Your task to perform on an android device: Is it going to rain tomorrow? Image 0: 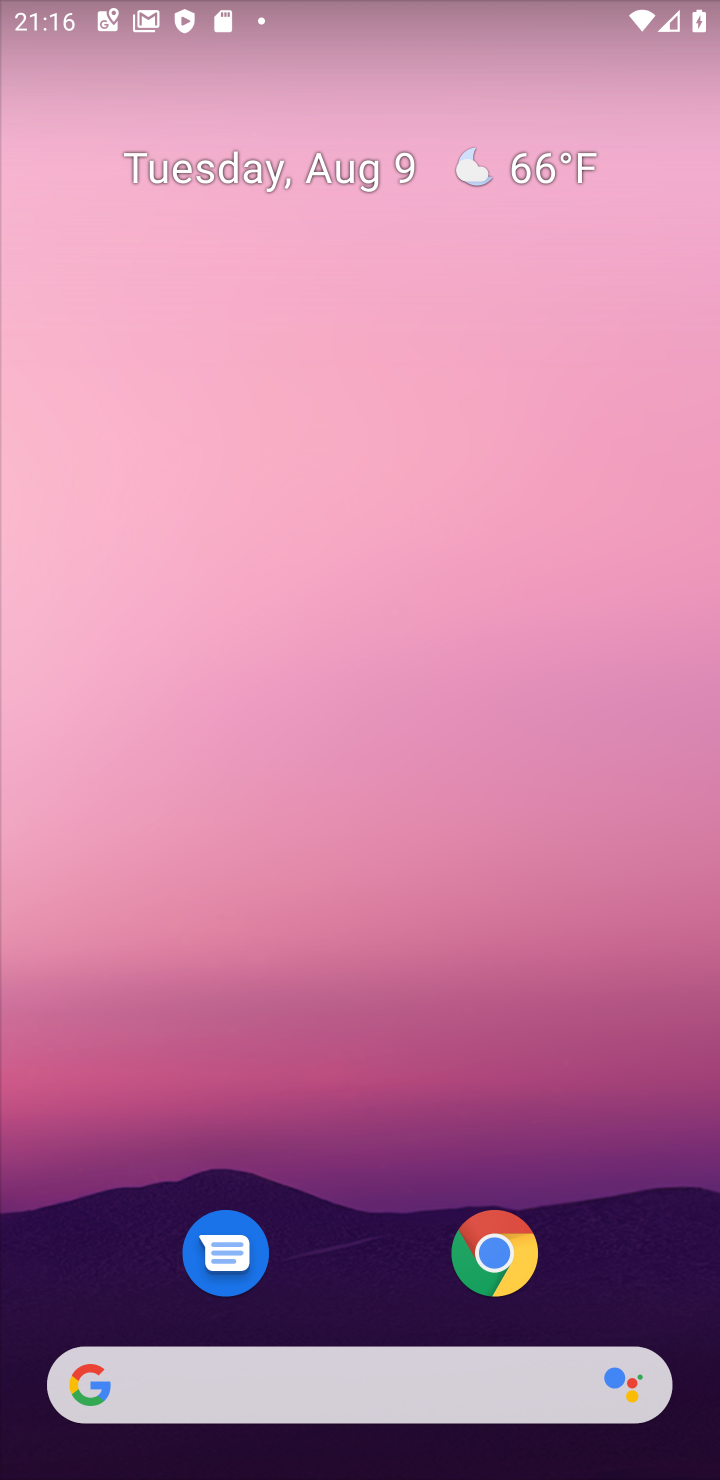
Step 0: click (567, 171)
Your task to perform on an android device: Is it going to rain tomorrow? Image 1: 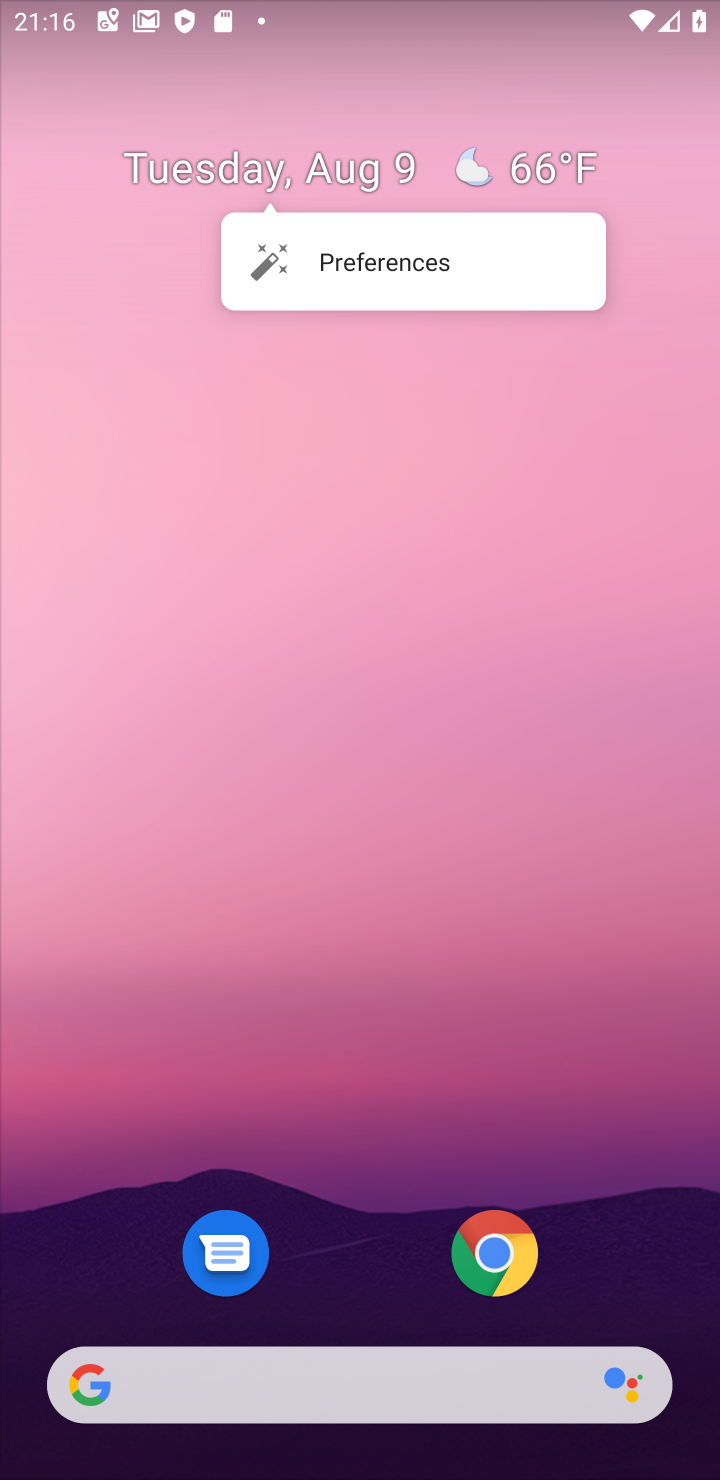
Step 1: click (567, 171)
Your task to perform on an android device: Is it going to rain tomorrow? Image 2: 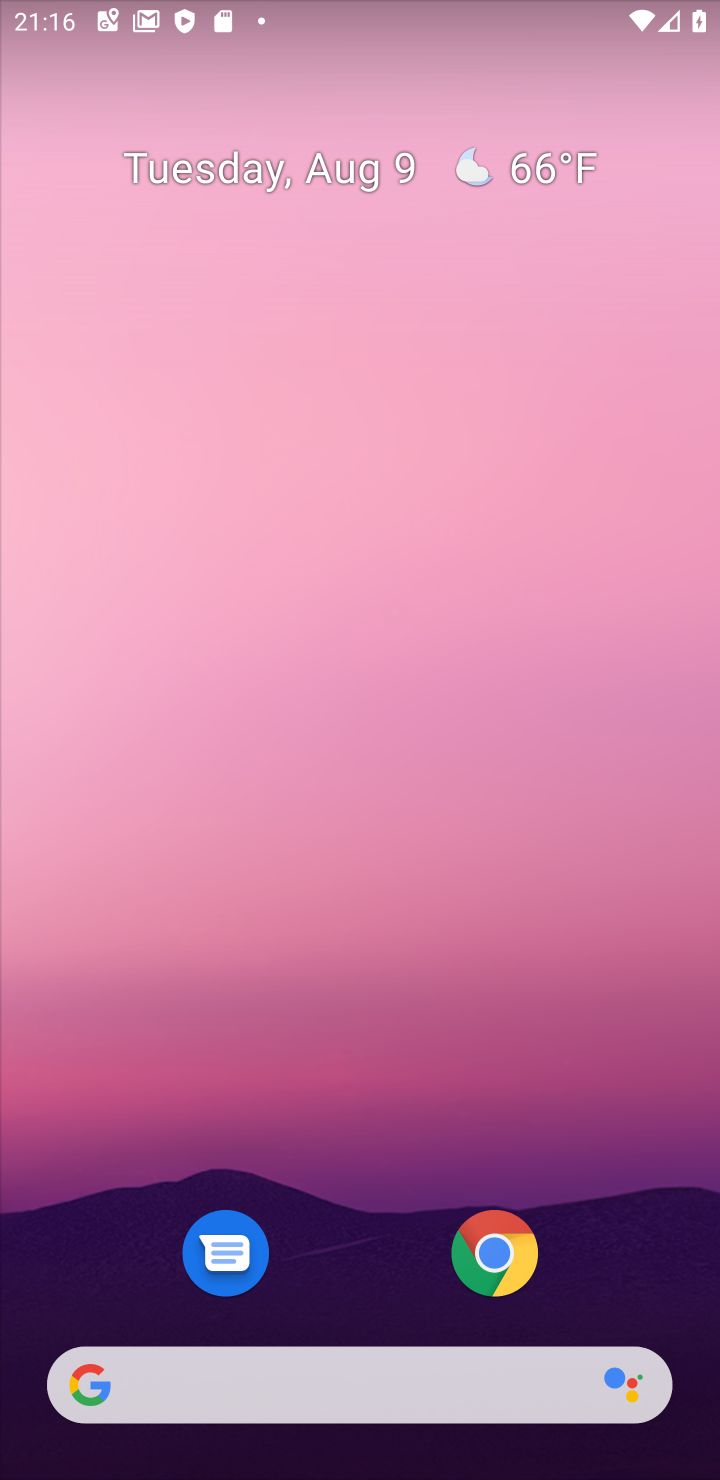
Step 2: click (507, 169)
Your task to perform on an android device: Is it going to rain tomorrow? Image 3: 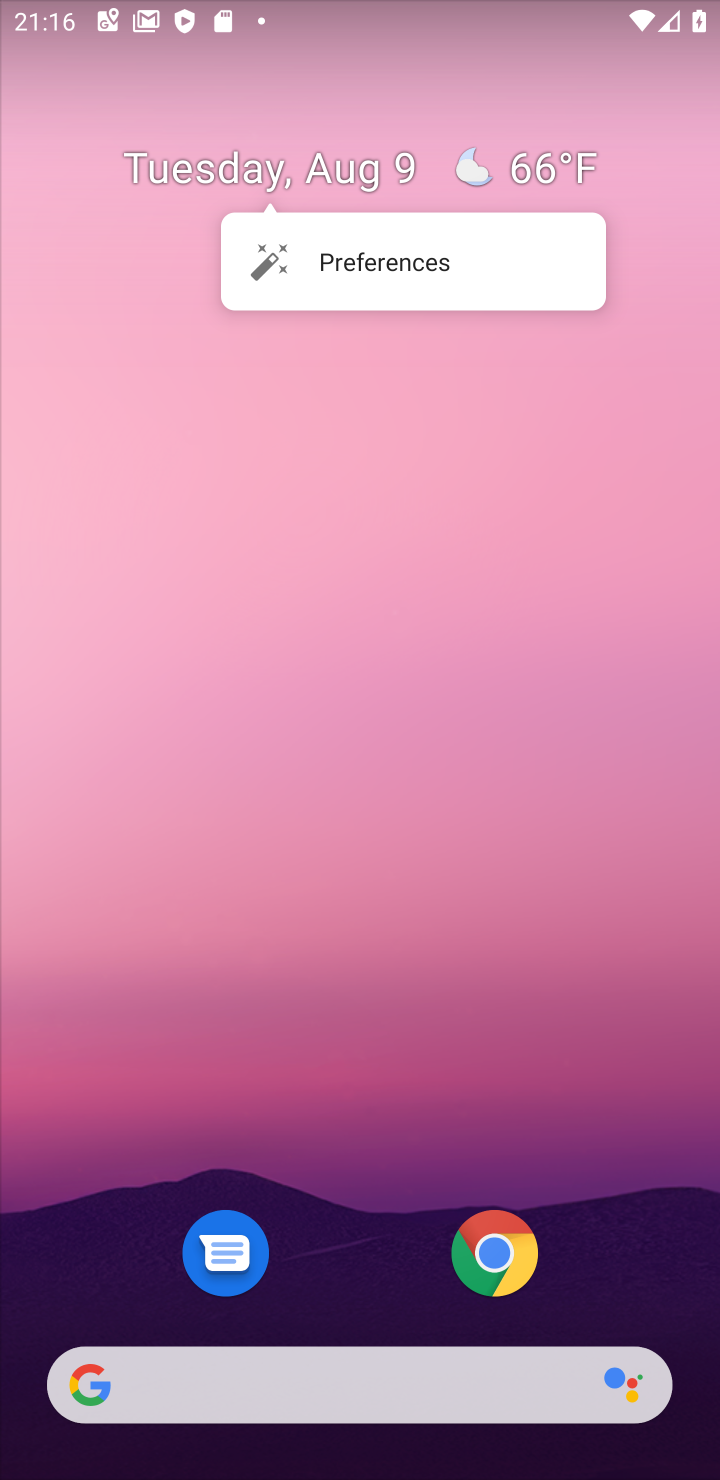
Step 3: click (514, 178)
Your task to perform on an android device: Is it going to rain tomorrow? Image 4: 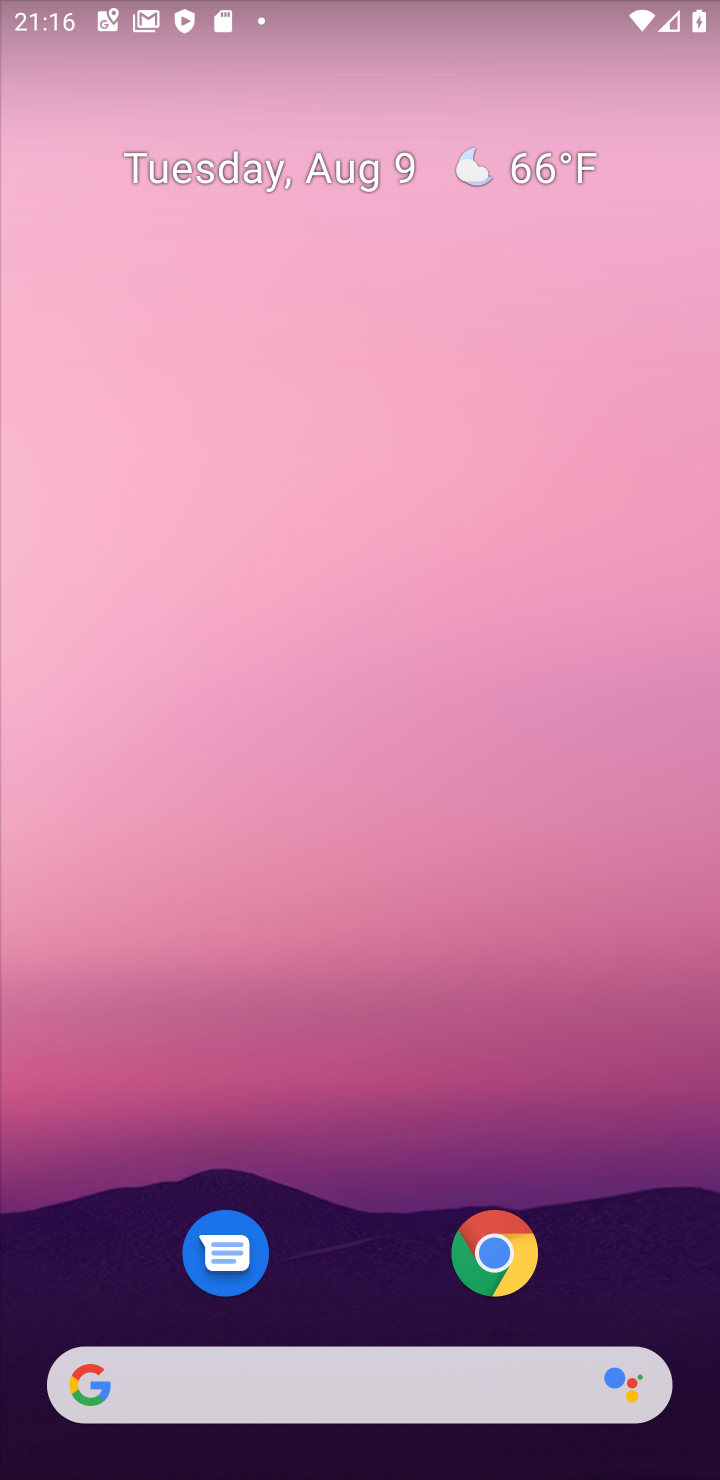
Step 4: click (380, 1234)
Your task to perform on an android device: Is it going to rain tomorrow? Image 5: 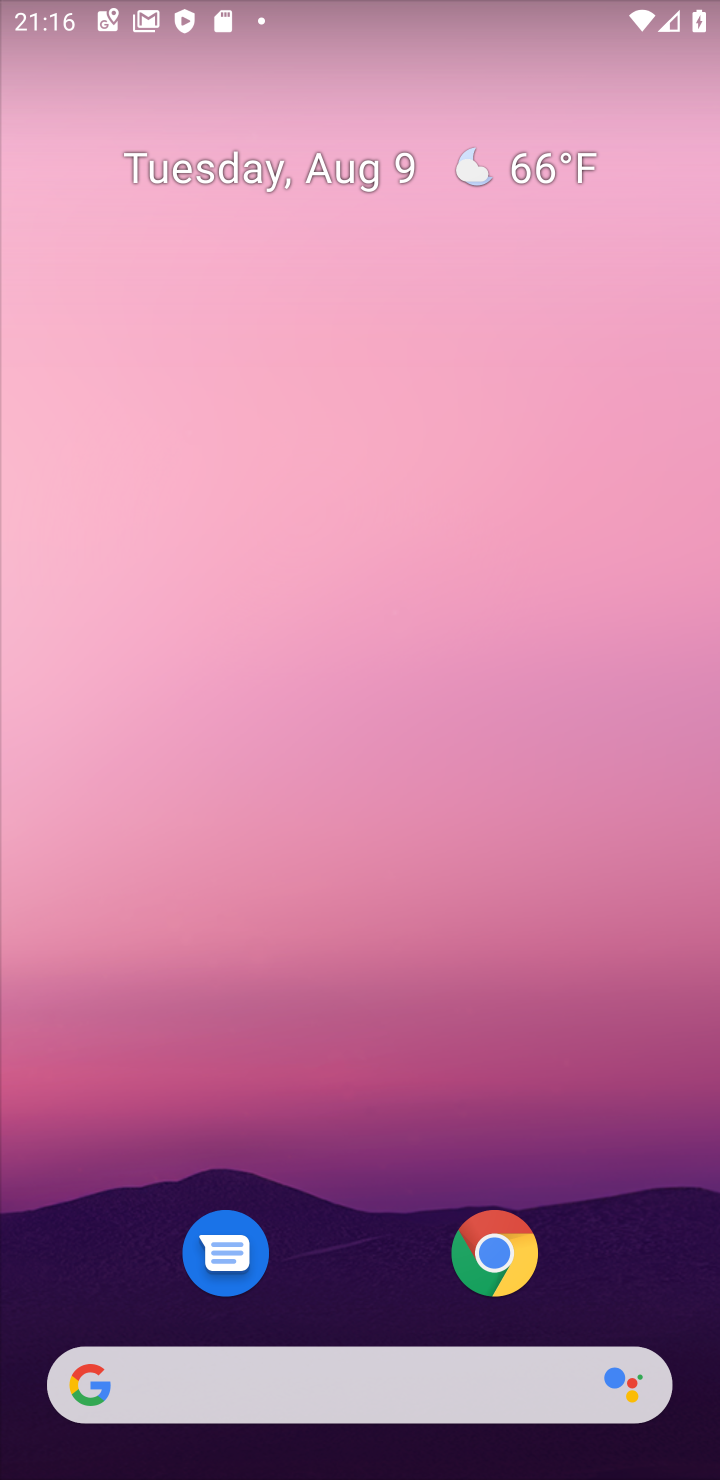
Step 5: drag from (365, 1174) to (561, 220)
Your task to perform on an android device: Is it going to rain tomorrow? Image 6: 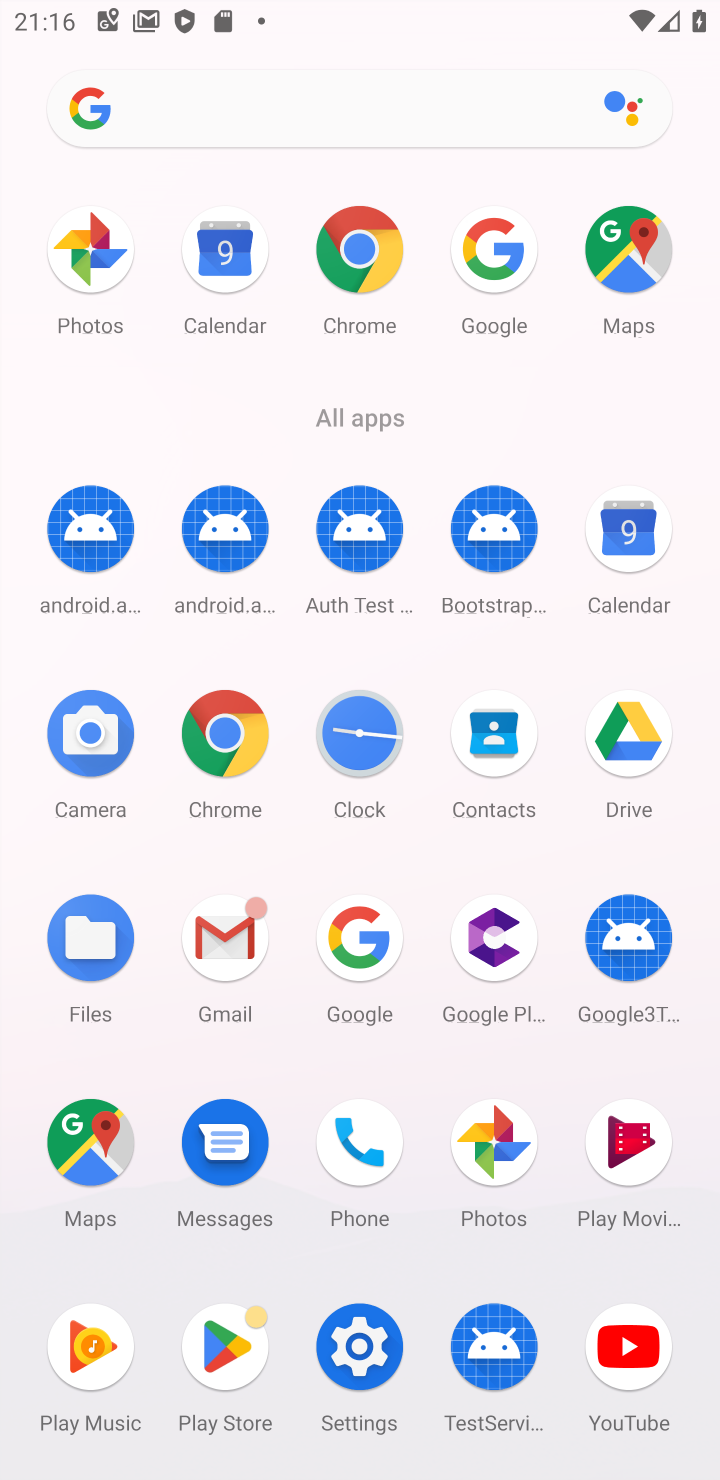
Step 6: click (231, 716)
Your task to perform on an android device: Is it going to rain tomorrow? Image 7: 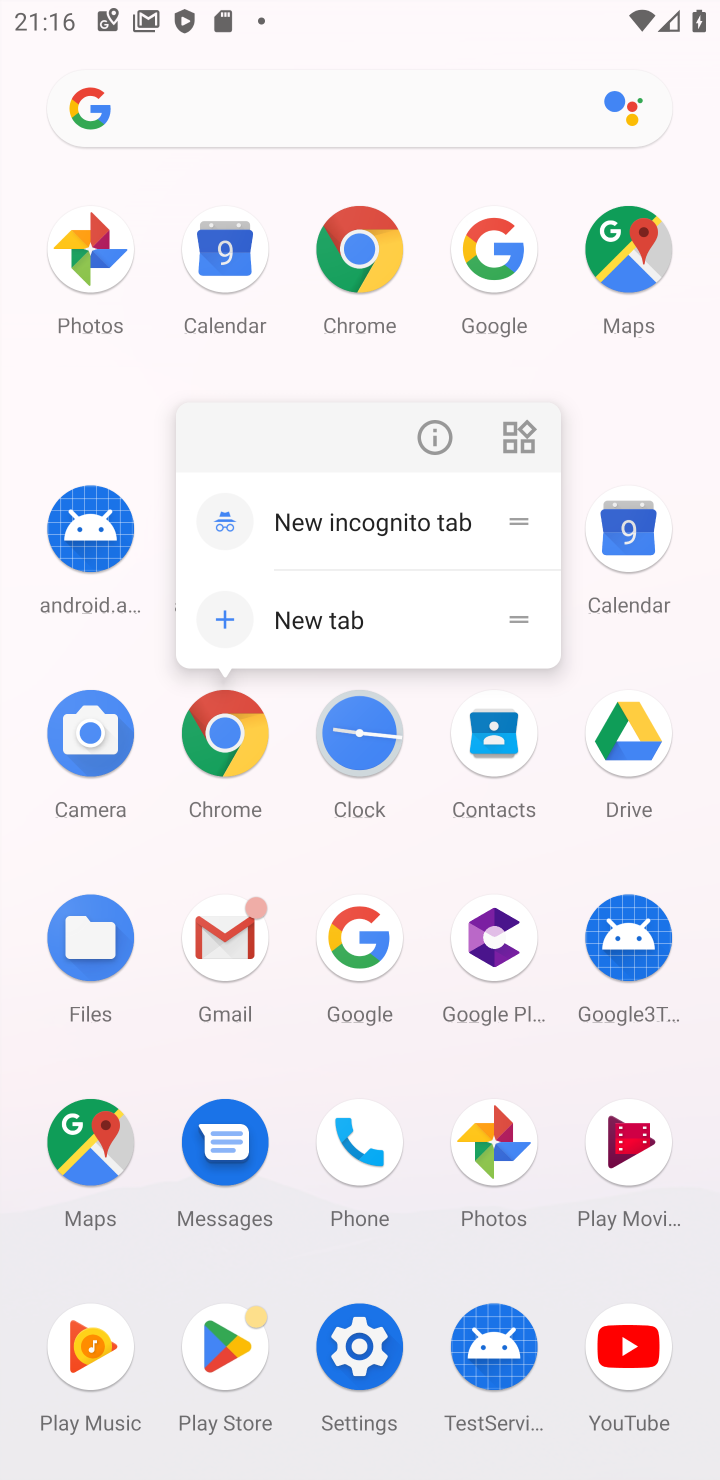
Step 7: click (230, 742)
Your task to perform on an android device: Is it going to rain tomorrow? Image 8: 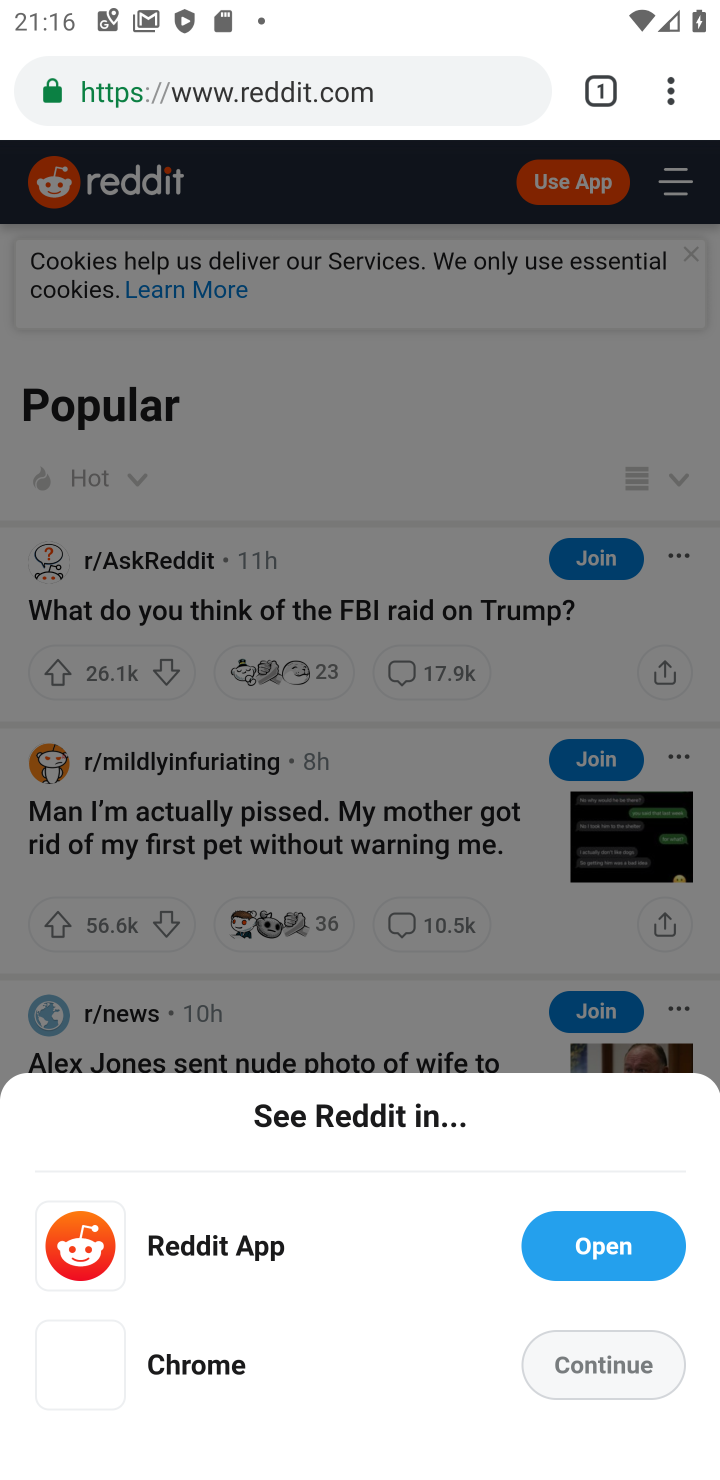
Step 8: click (328, 106)
Your task to perform on an android device: Is it going to rain tomorrow? Image 9: 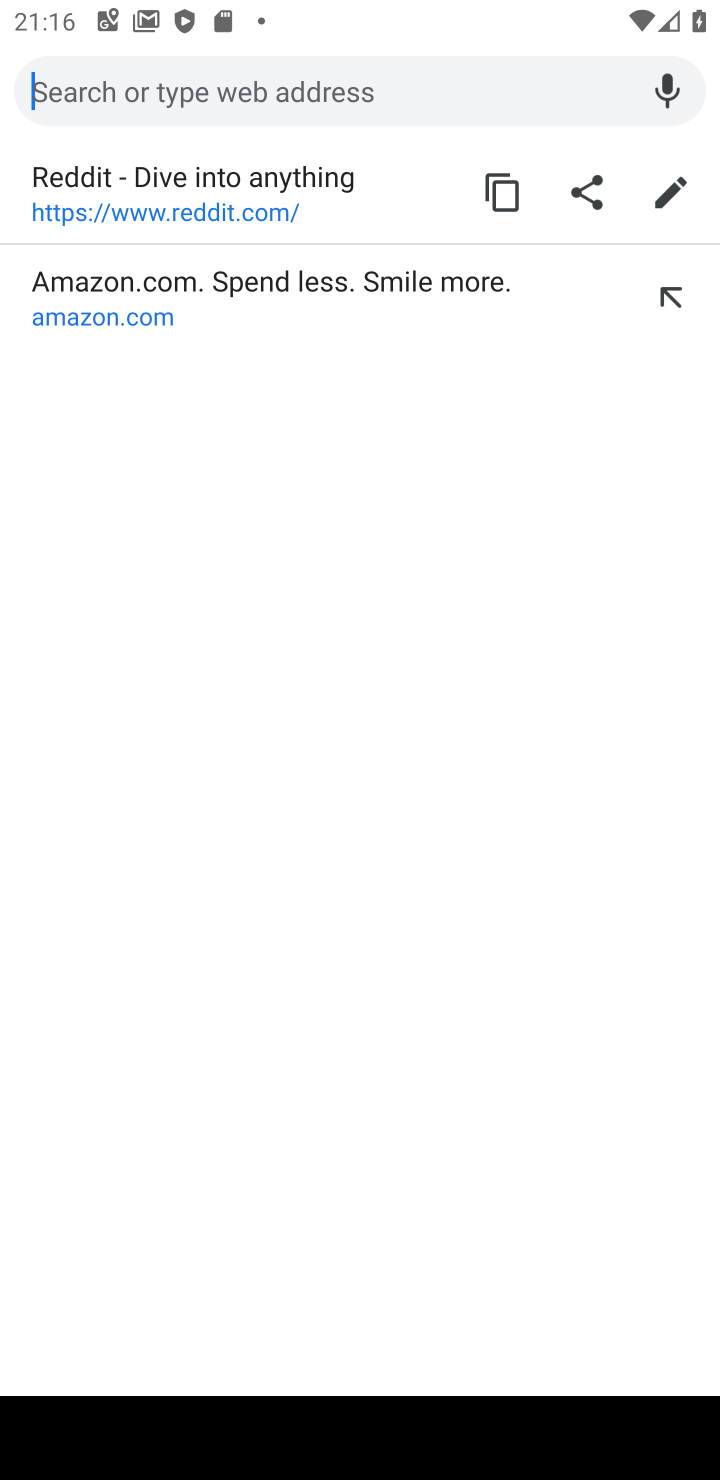
Step 9: type "weather"
Your task to perform on an android device: Is it going to rain tomorrow? Image 10: 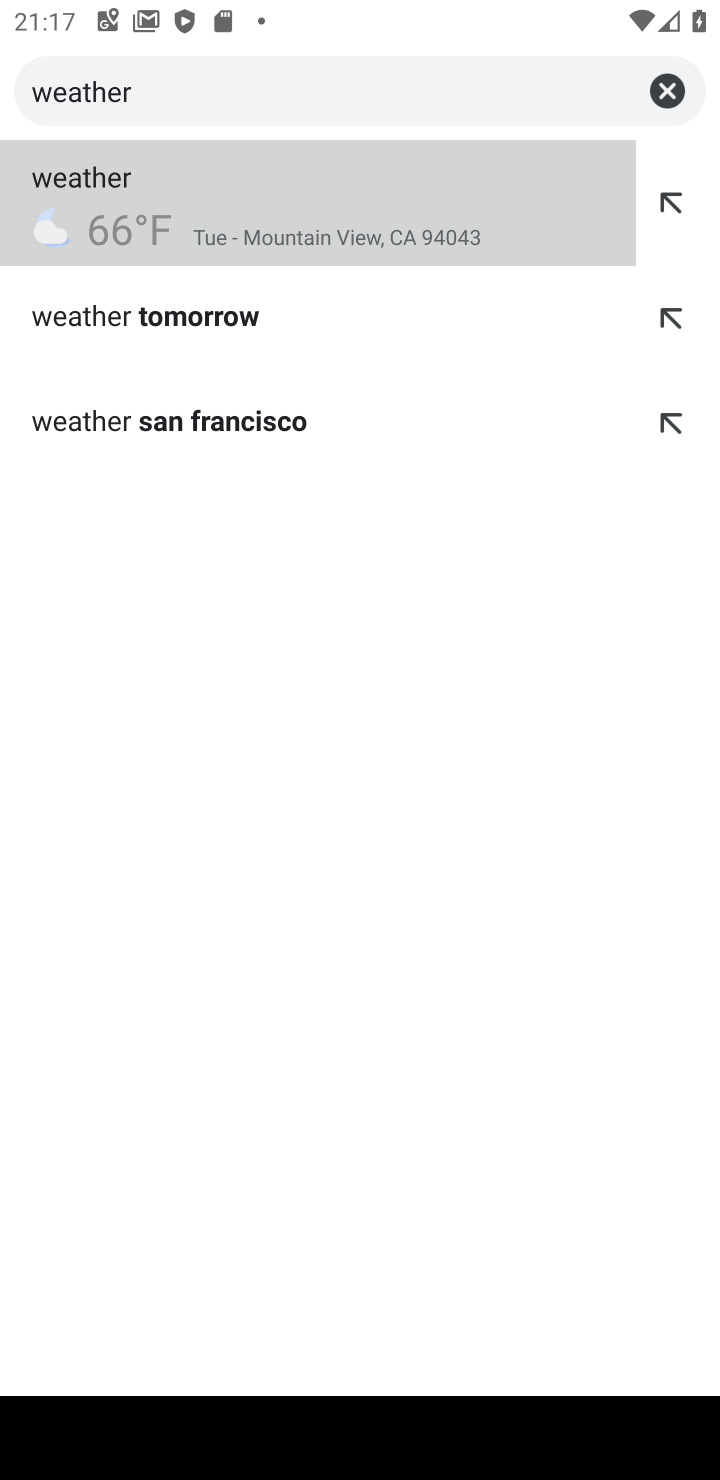
Step 10: press enter
Your task to perform on an android device: Is it going to rain tomorrow? Image 11: 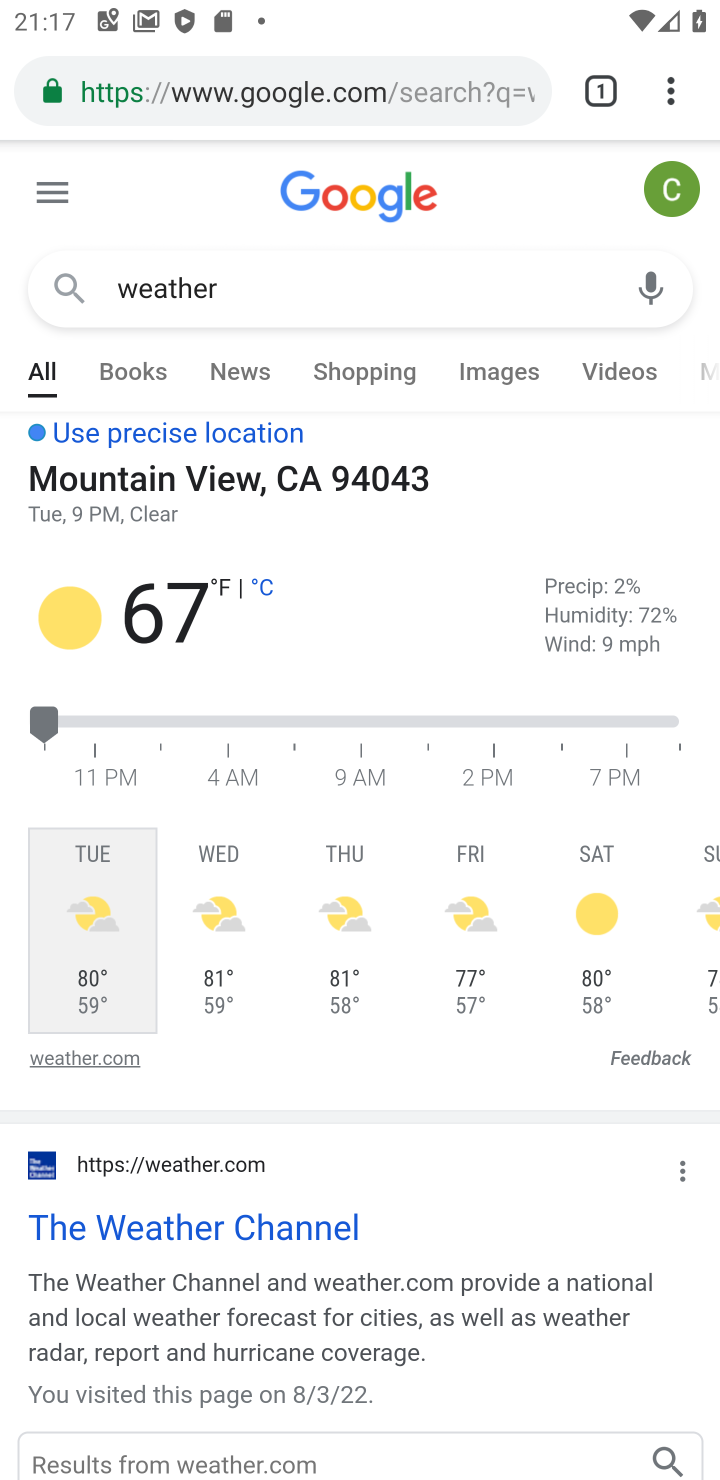
Step 11: click (218, 895)
Your task to perform on an android device: Is it going to rain tomorrow? Image 12: 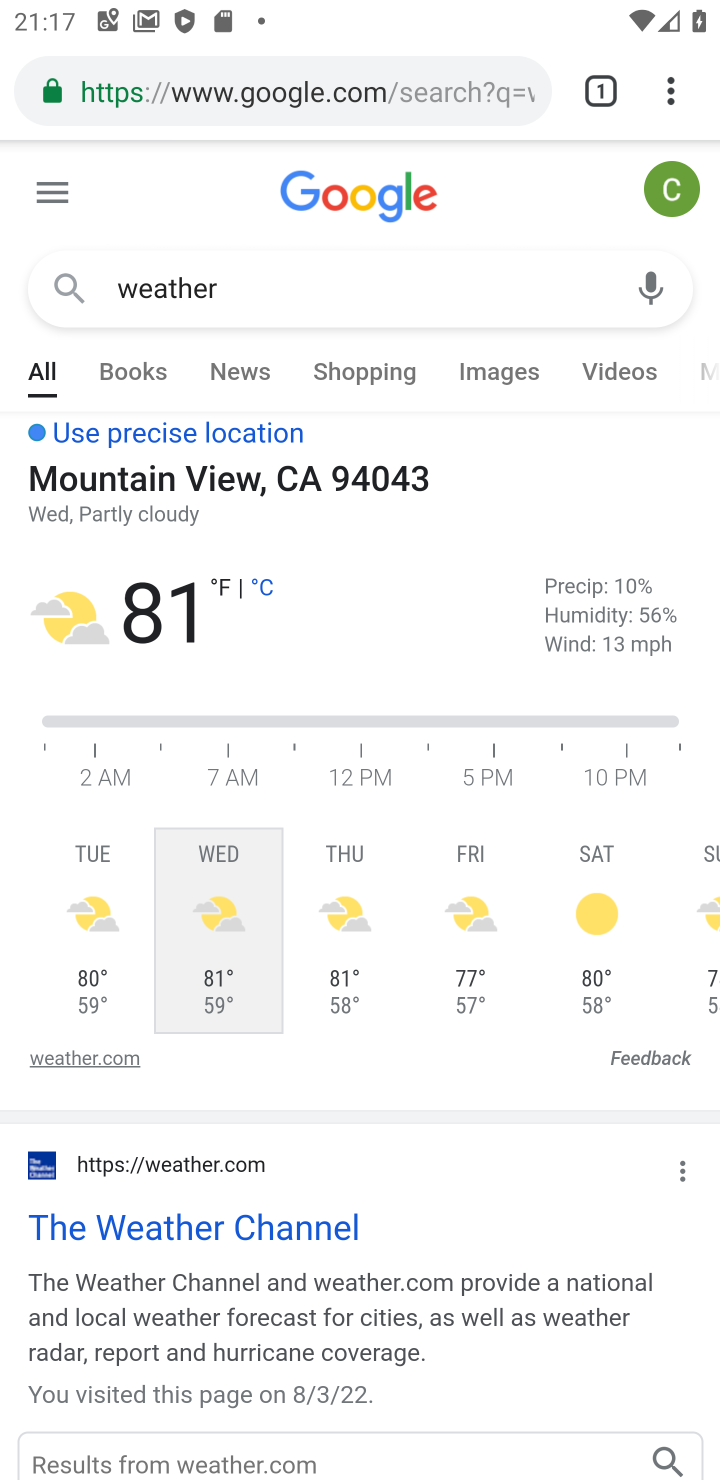
Step 12: task complete